Your task to perform on an android device: Open sound settings Image 0: 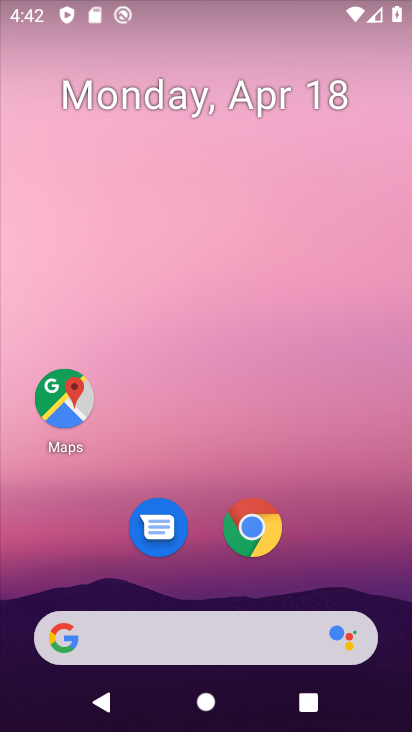
Step 0: drag from (190, 607) to (206, 110)
Your task to perform on an android device: Open sound settings Image 1: 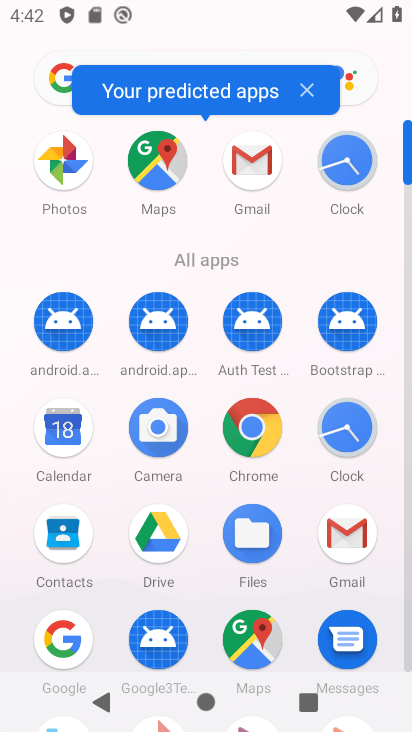
Step 1: drag from (223, 543) to (231, 202)
Your task to perform on an android device: Open sound settings Image 2: 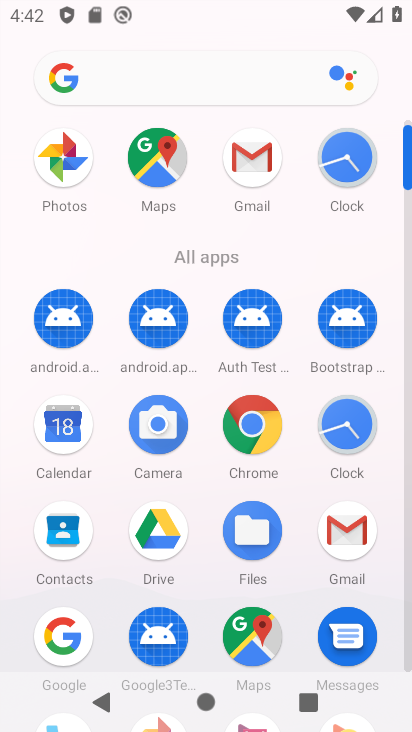
Step 2: drag from (193, 669) to (230, 231)
Your task to perform on an android device: Open sound settings Image 3: 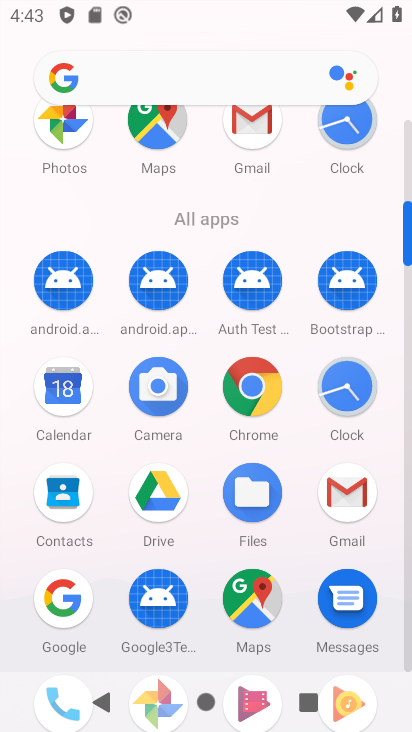
Step 3: drag from (119, 524) to (137, 368)
Your task to perform on an android device: Open sound settings Image 4: 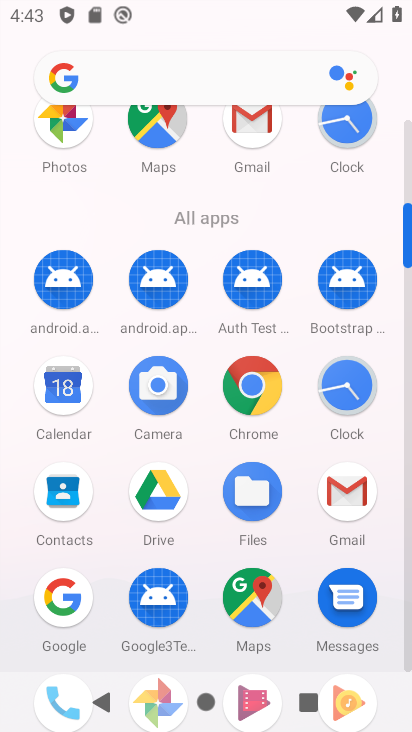
Step 4: drag from (212, 643) to (234, 83)
Your task to perform on an android device: Open sound settings Image 5: 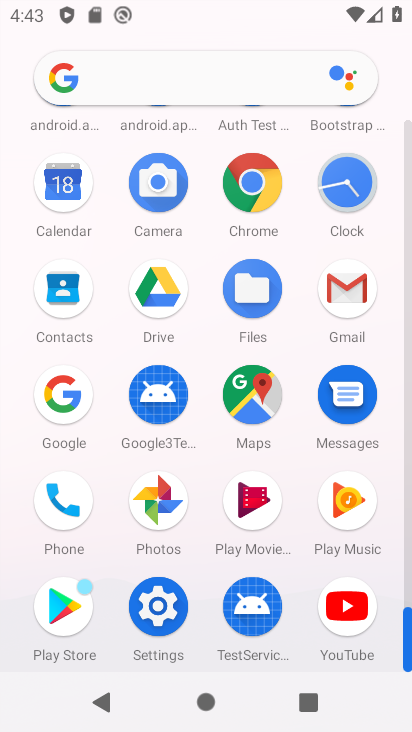
Step 5: click (158, 611)
Your task to perform on an android device: Open sound settings Image 6: 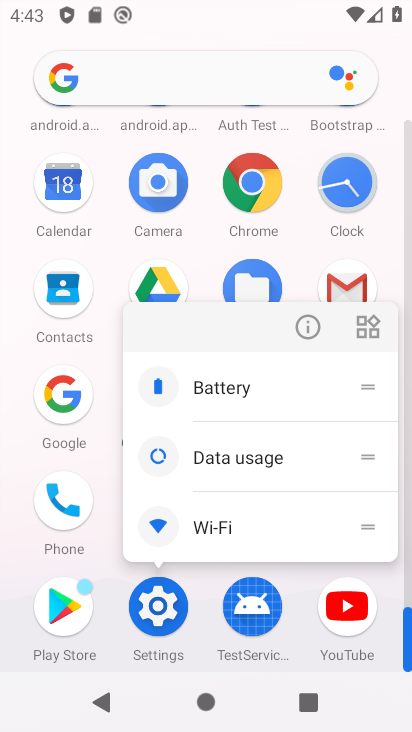
Step 6: click (156, 601)
Your task to perform on an android device: Open sound settings Image 7: 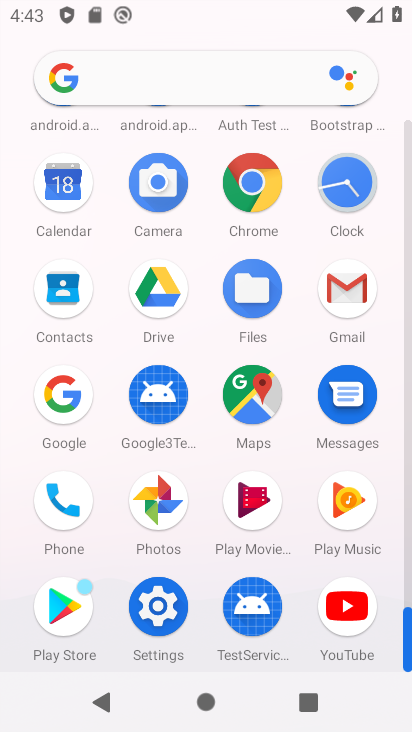
Step 7: click (156, 601)
Your task to perform on an android device: Open sound settings Image 8: 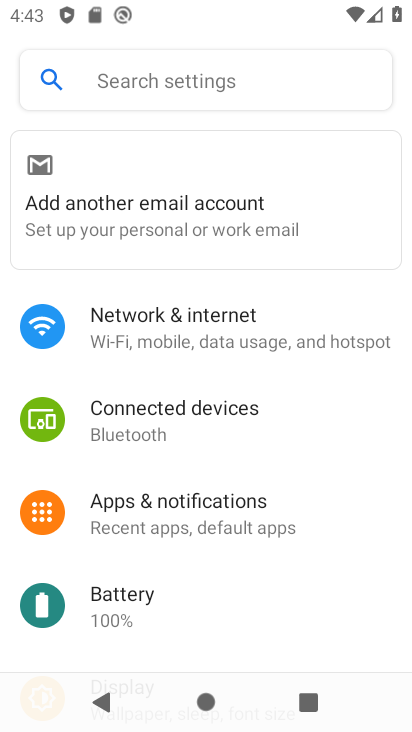
Step 8: drag from (241, 576) to (265, 328)
Your task to perform on an android device: Open sound settings Image 9: 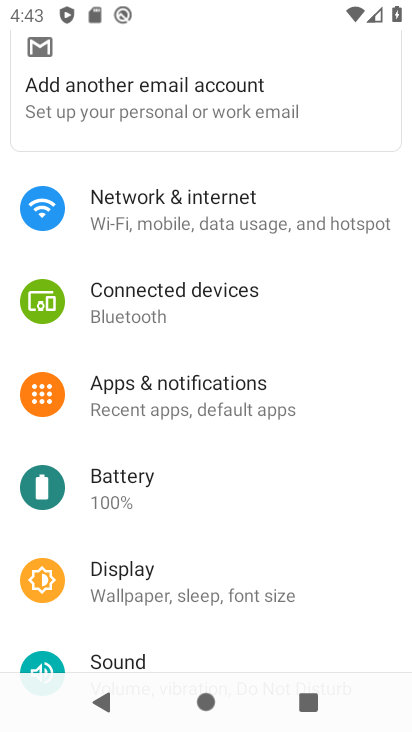
Step 9: drag from (191, 633) to (212, 332)
Your task to perform on an android device: Open sound settings Image 10: 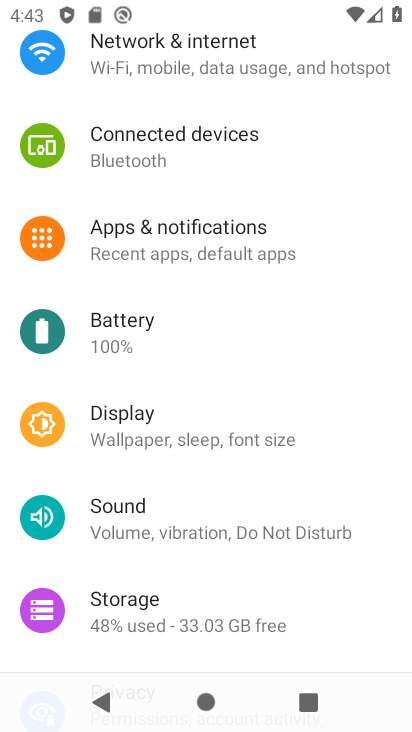
Step 10: click (156, 529)
Your task to perform on an android device: Open sound settings Image 11: 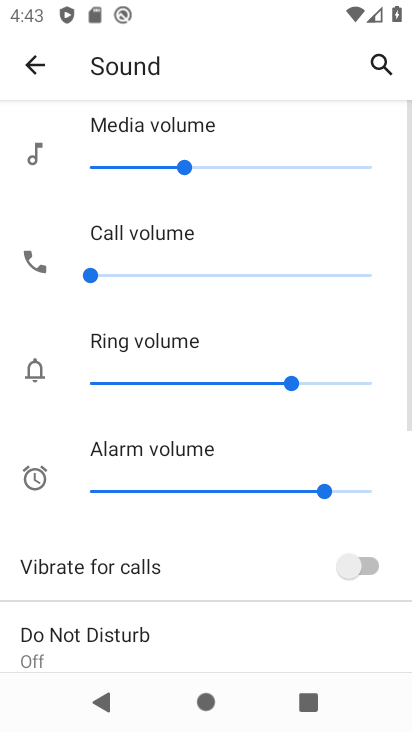
Step 11: task complete